Your task to perform on an android device: turn off javascript in the chrome app Image 0: 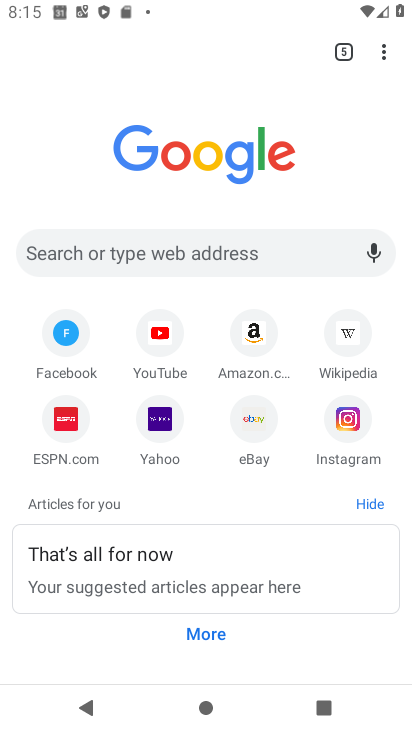
Step 0: press home button
Your task to perform on an android device: turn off javascript in the chrome app Image 1: 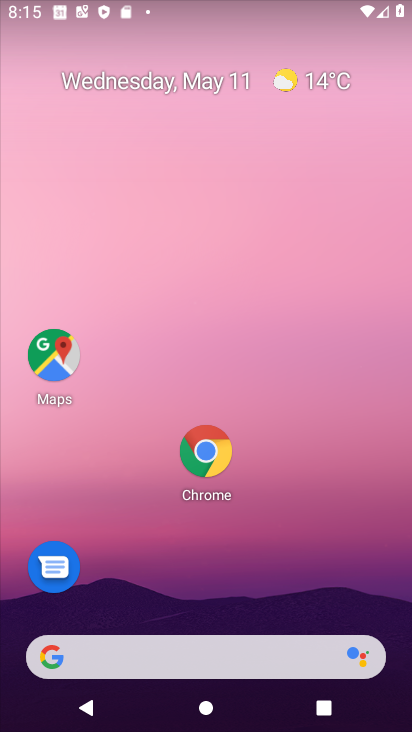
Step 1: drag from (161, 660) to (270, 212)
Your task to perform on an android device: turn off javascript in the chrome app Image 2: 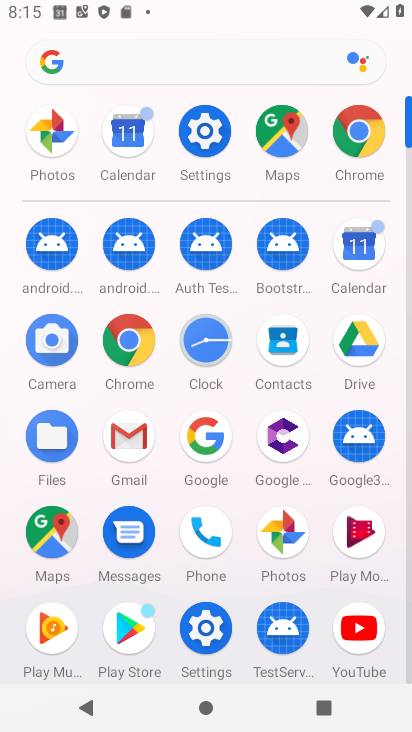
Step 2: click (362, 136)
Your task to perform on an android device: turn off javascript in the chrome app Image 3: 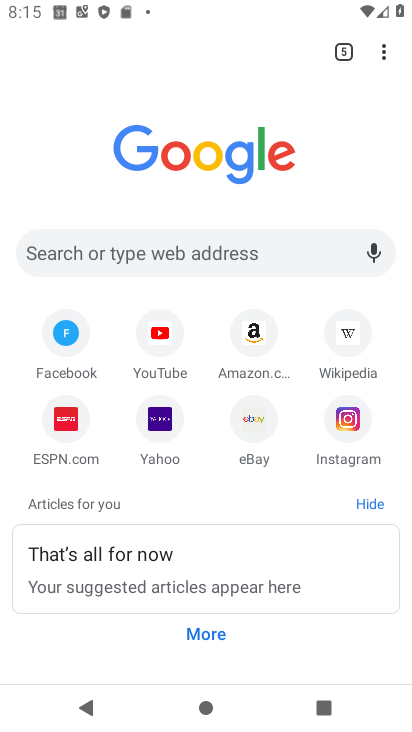
Step 3: drag from (383, 58) to (236, 433)
Your task to perform on an android device: turn off javascript in the chrome app Image 4: 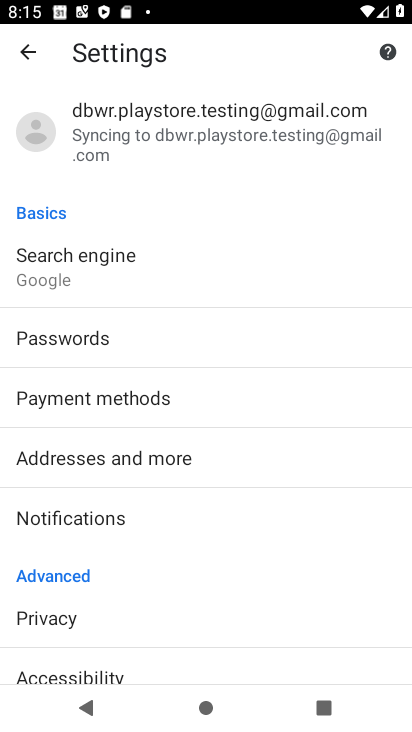
Step 4: drag from (140, 639) to (294, 191)
Your task to perform on an android device: turn off javascript in the chrome app Image 5: 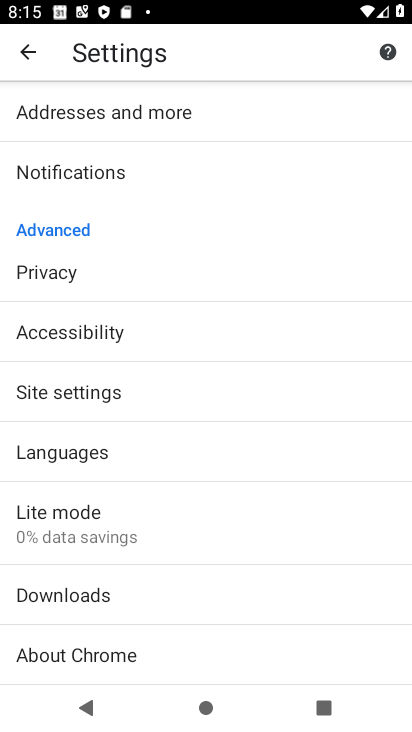
Step 5: click (105, 404)
Your task to perform on an android device: turn off javascript in the chrome app Image 6: 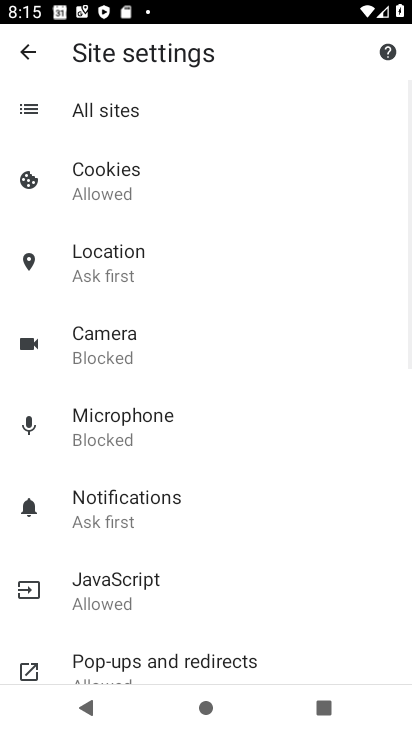
Step 6: click (129, 594)
Your task to perform on an android device: turn off javascript in the chrome app Image 7: 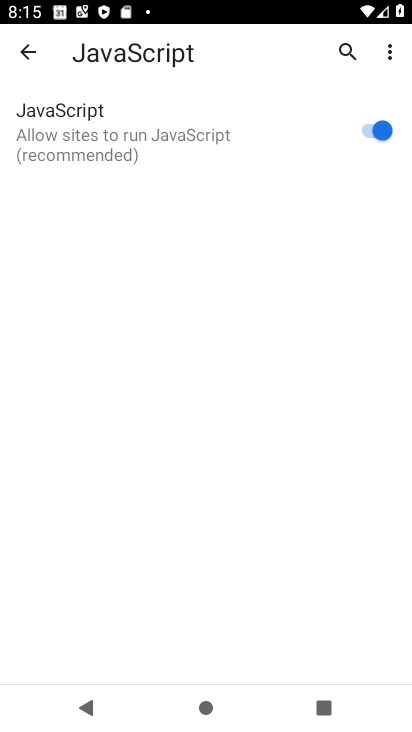
Step 7: click (374, 128)
Your task to perform on an android device: turn off javascript in the chrome app Image 8: 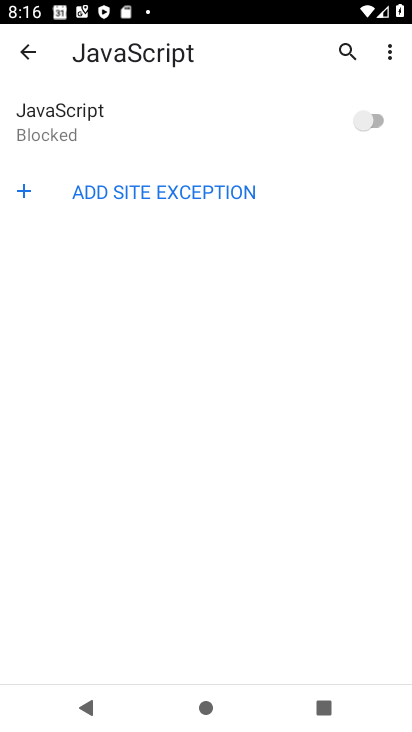
Step 8: task complete